Your task to perform on an android device: turn off notifications in google photos Image 0: 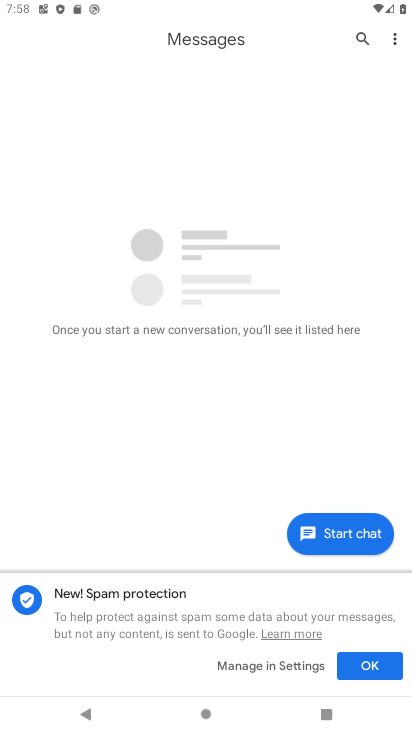
Step 0: press home button
Your task to perform on an android device: turn off notifications in google photos Image 1: 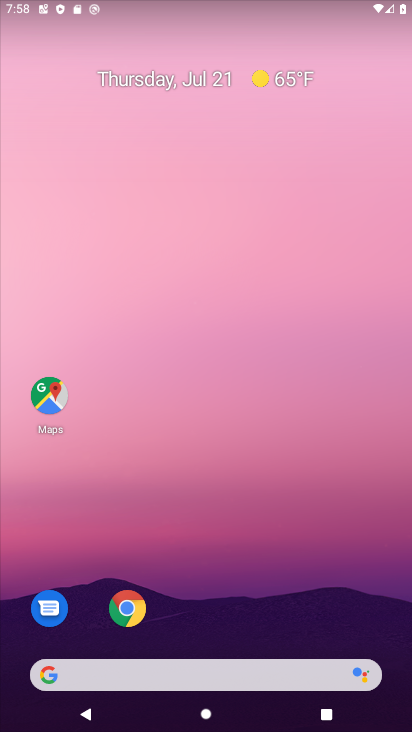
Step 1: drag from (171, 676) to (296, 231)
Your task to perform on an android device: turn off notifications in google photos Image 2: 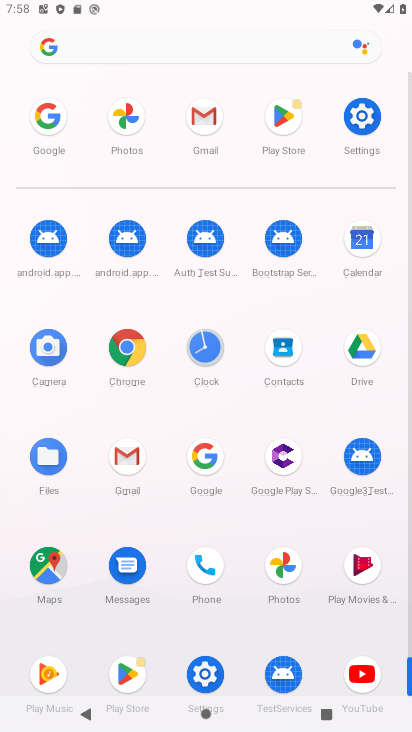
Step 2: click (125, 114)
Your task to perform on an android device: turn off notifications in google photos Image 3: 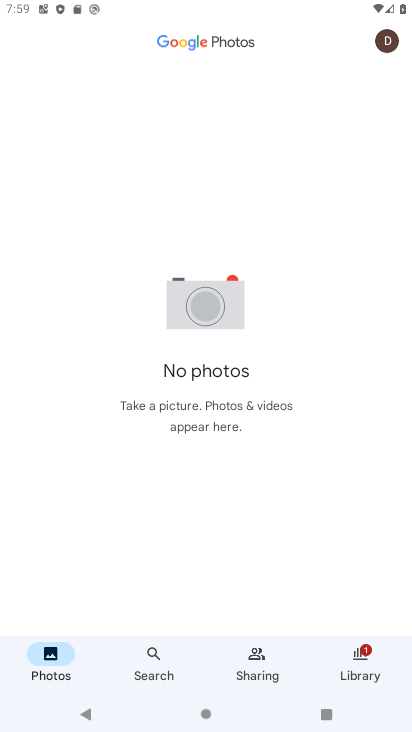
Step 3: click (386, 39)
Your task to perform on an android device: turn off notifications in google photos Image 4: 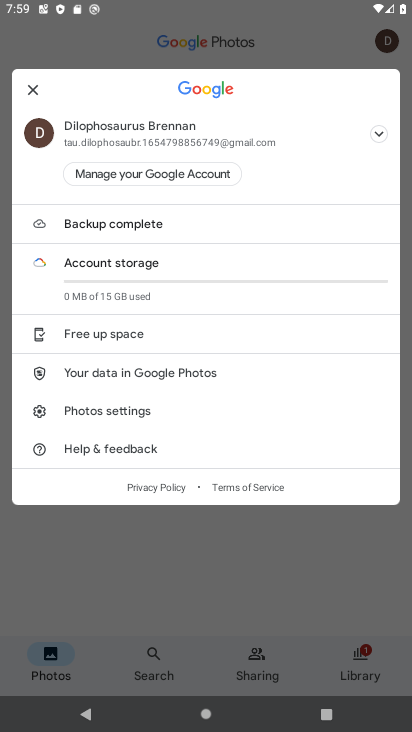
Step 4: click (98, 411)
Your task to perform on an android device: turn off notifications in google photos Image 5: 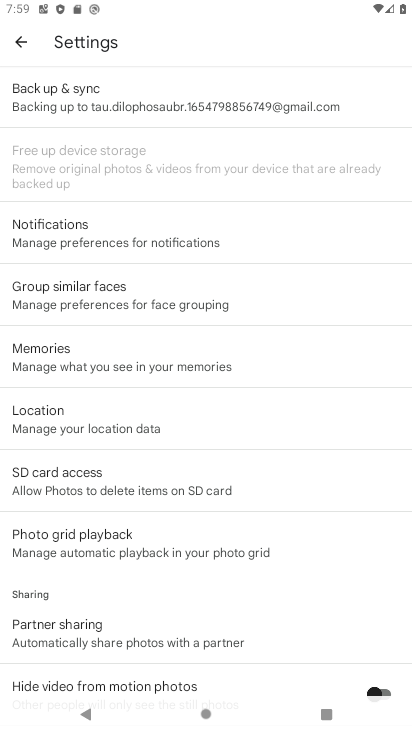
Step 5: click (158, 242)
Your task to perform on an android device: turn off notifications in google photos Image 6: 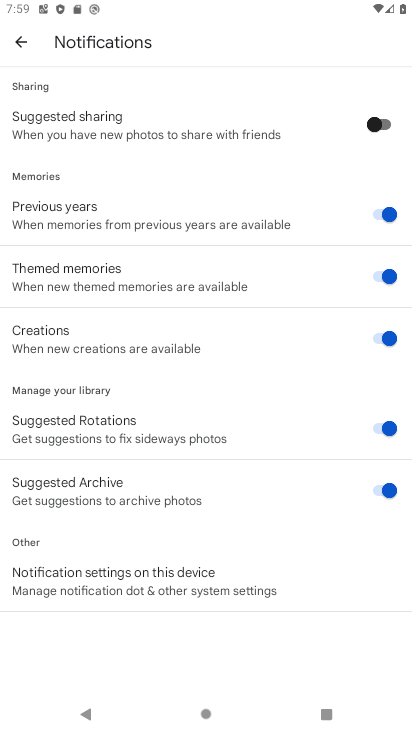
Step 6: click (133, 577)
Your task to perform on an android device: turn off notifications in google photos Image 7: 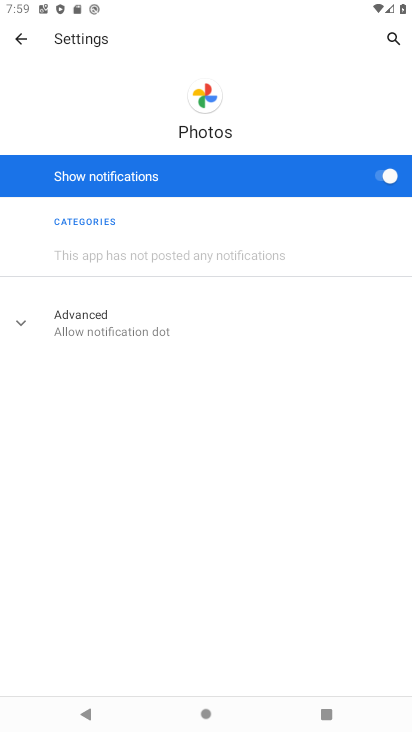
Step 7: click (382, 176)
Your task to perform on an android device: turn off notifications in google photos Image 8: 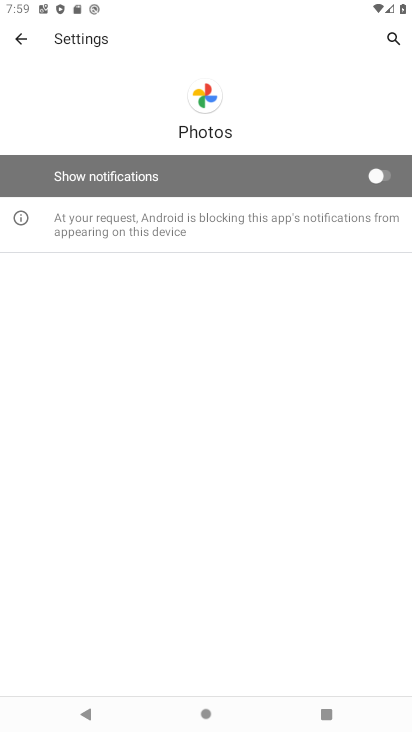
Step 8: task complete